Your task to perform on an android device: toggle improve location accuracy Image 0: 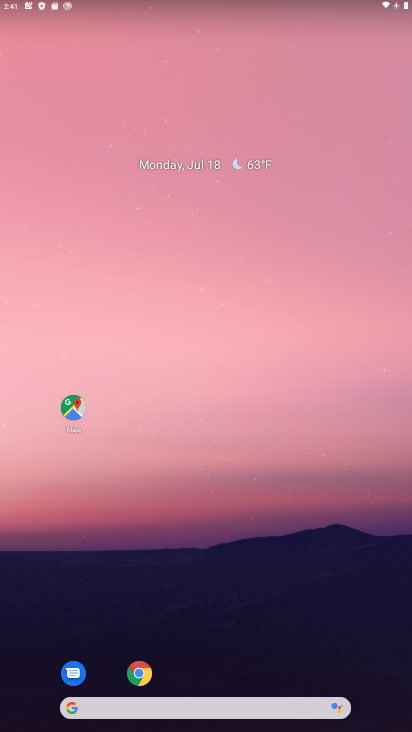
Step 0: drag from (215, 647) to (210, 390)
Your task to perform on an android device: toggle improve location accuracy Image 1: 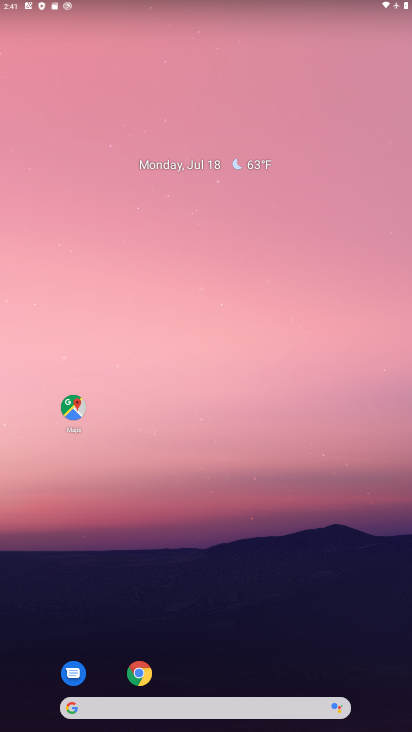
Step 1: drag from (200, 654) to (159, 458)
Your task to perform on an android device: toggle improve location accuracy Image 2: 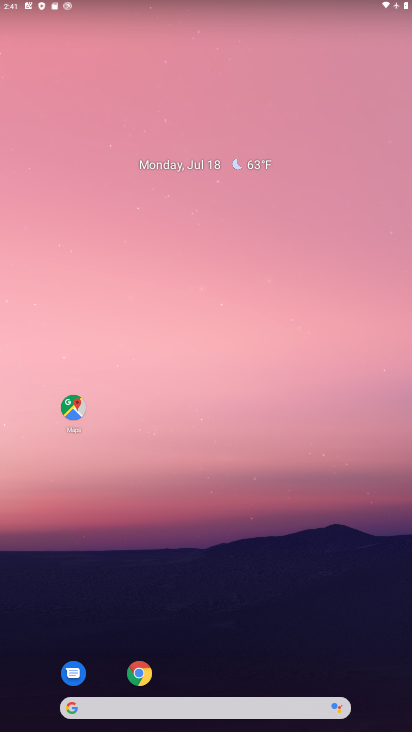
Step 2: drag from (243, 654) to (229, 260)
Your task to perform on an android device: toggle improve location accuracy Image 3: 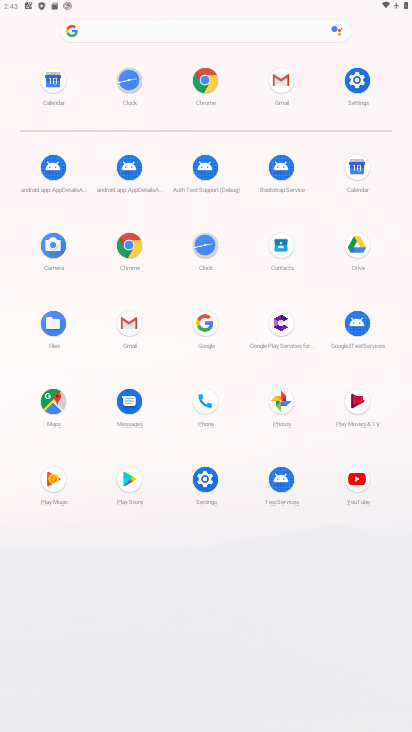
Step 3: click (357, 81)
Your task to perform on an android device: toggle improve location accuracy Image 4: 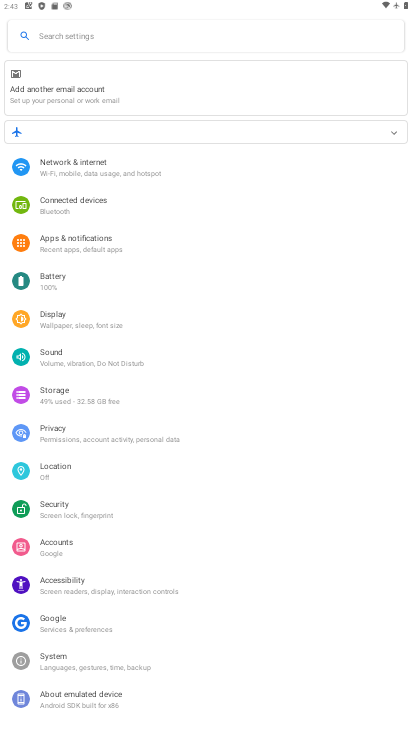
Step 4: click (80, 462)
Your task to perform on an android device: toggle improve location accuracy Image 5: 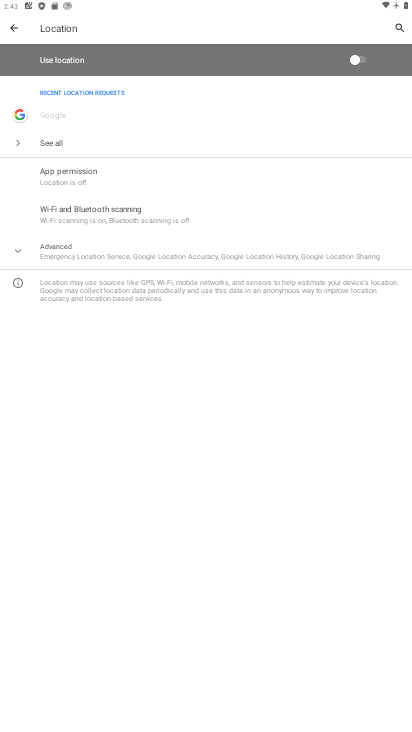
Step 5: click (145, 243)
Your task to perform on an android device: toggle improve location accuracy Image 6: 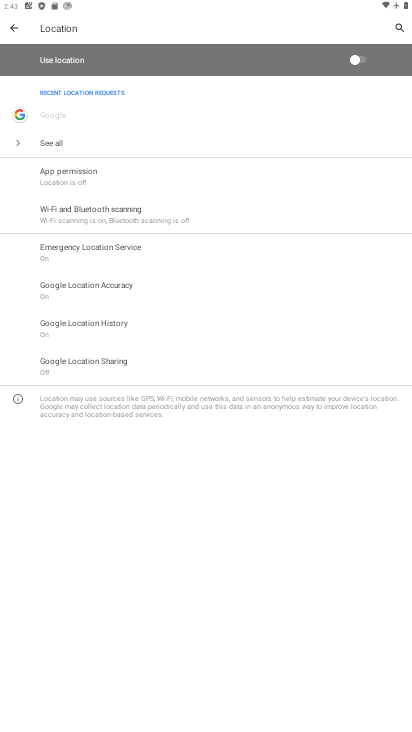
Step 6: click (132, 277)
Your task to perform on an android device: toggle improve location accuracy Image 7: 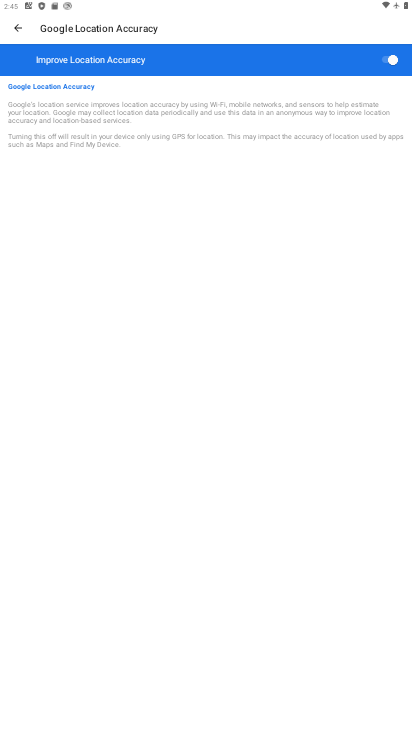
Step 7: task complete